Your task to perform on an android device: turn notification dots off Image 0: 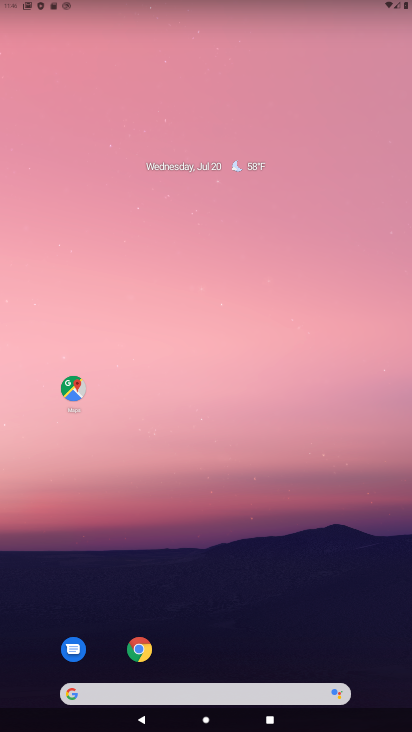
Step 0: drag from (223, 680) to (239, 151)
Your task to perform on an android device: turn notification dots off Image 1: 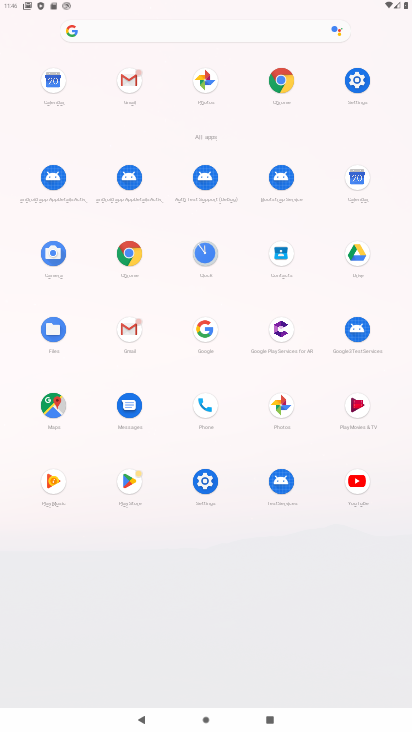
Step 1: click (359, 79)
Your task to perform on an android device: turn notification dots off Image 2: 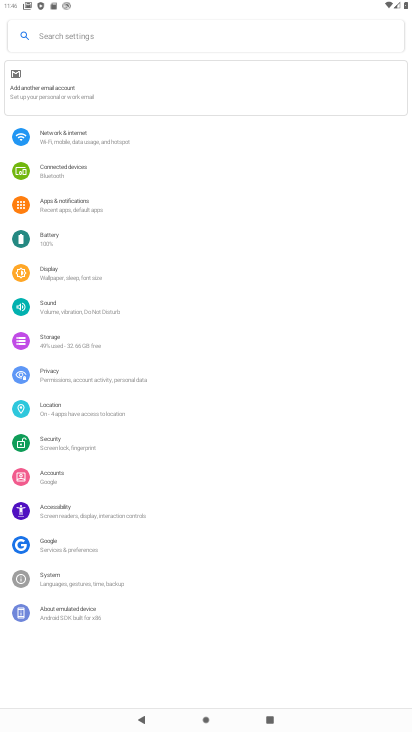
Step 2: click (96, 198)
Your task to perform on an android device: turn notification dots off Image 3: 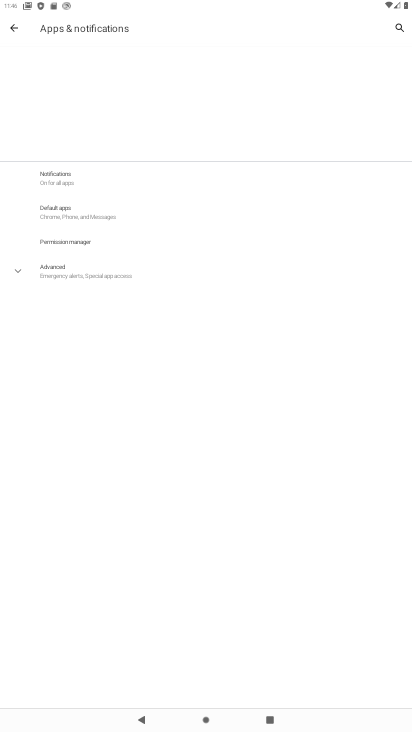
Step 3: click (72, 180)
Your task to perform on an android device: turn notification dots off Image 4: 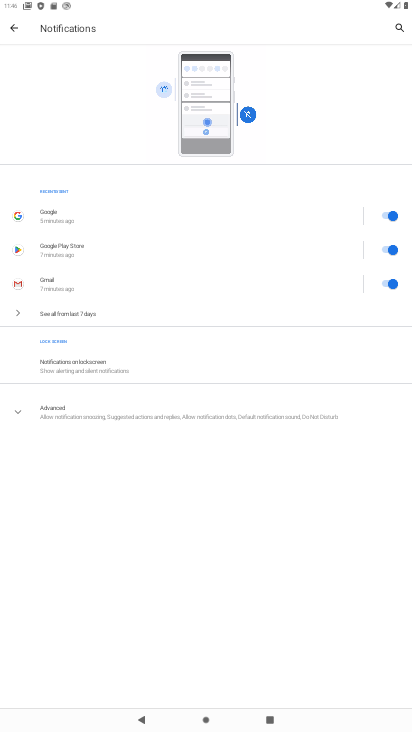
Step 4: click (74, 409)
Your task to perform on an android device: turn notification dots off Image 5: 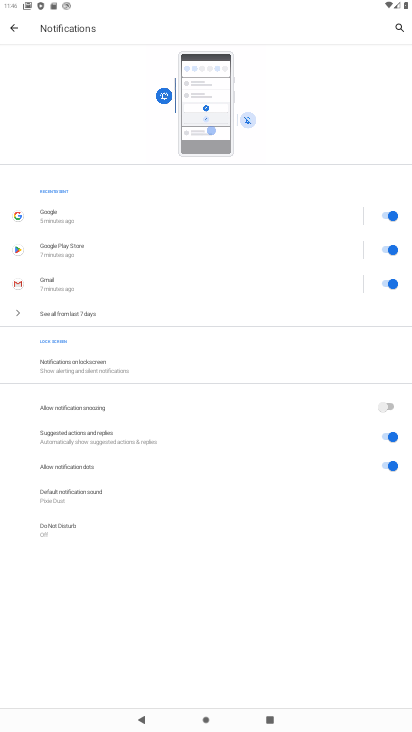
Step 5: click (385, 464)
Your task to perform on an android device: turn notification dots off Image 6: 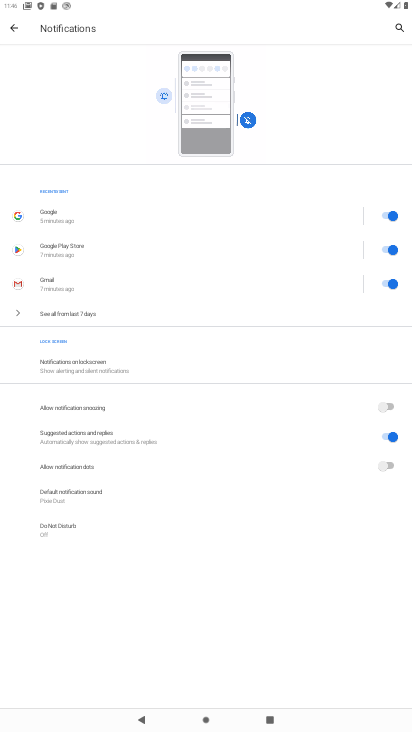
Step 6: task complete